Your task to perform on an android device: Is it going to rain tomorrow? Image 0: 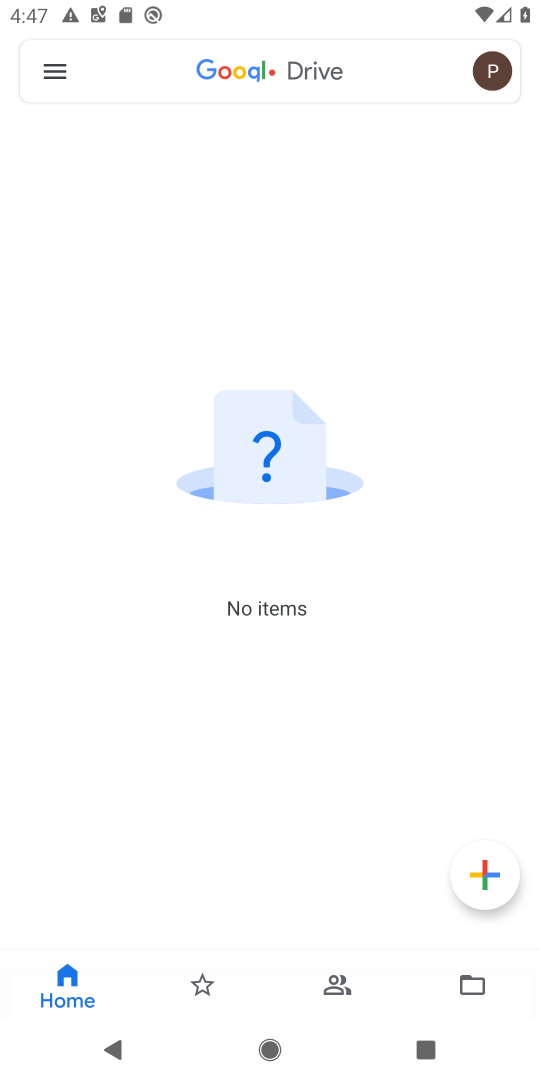
Step 0: press back button
Your task to perform on an android device: Is it going to rain tomorrow? Image 1: 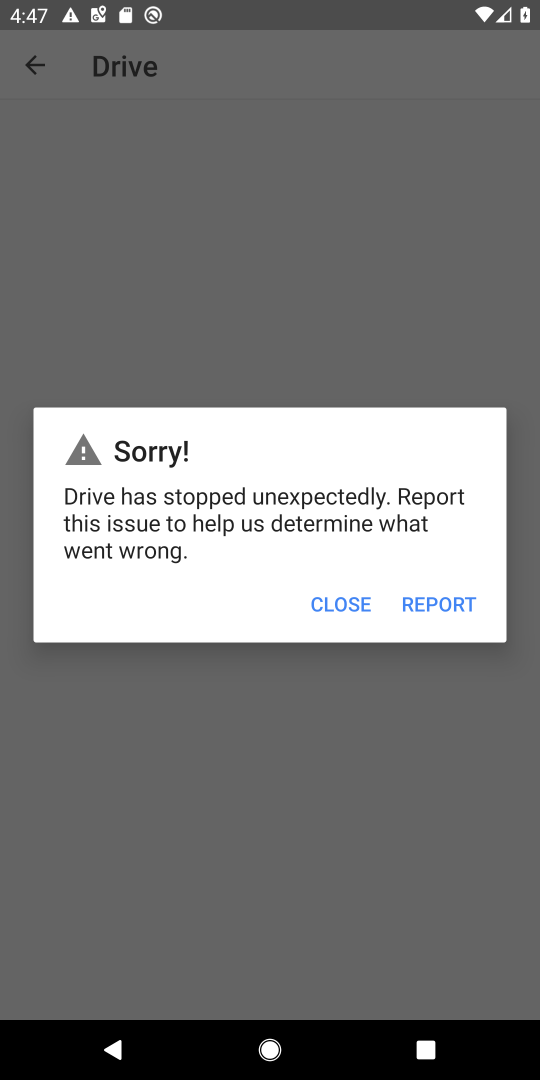
Step 1: click (330, 602)
Your task to perform on an android device: Is it going to rain tomorrow? Image 2: 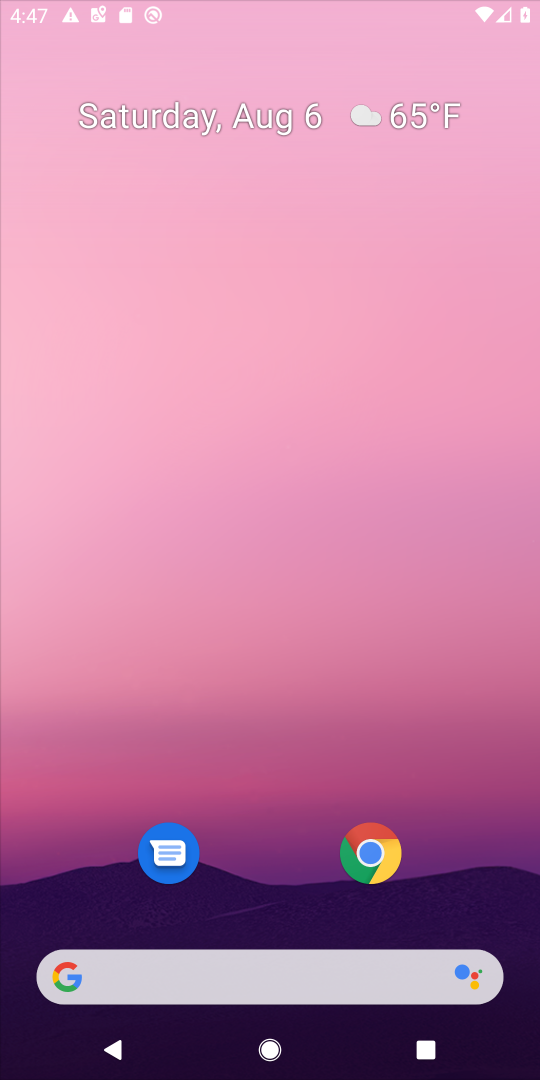
Step 2: press back button
Your task to perform on an android device: Is it going to rain tomorrow? Image 3: 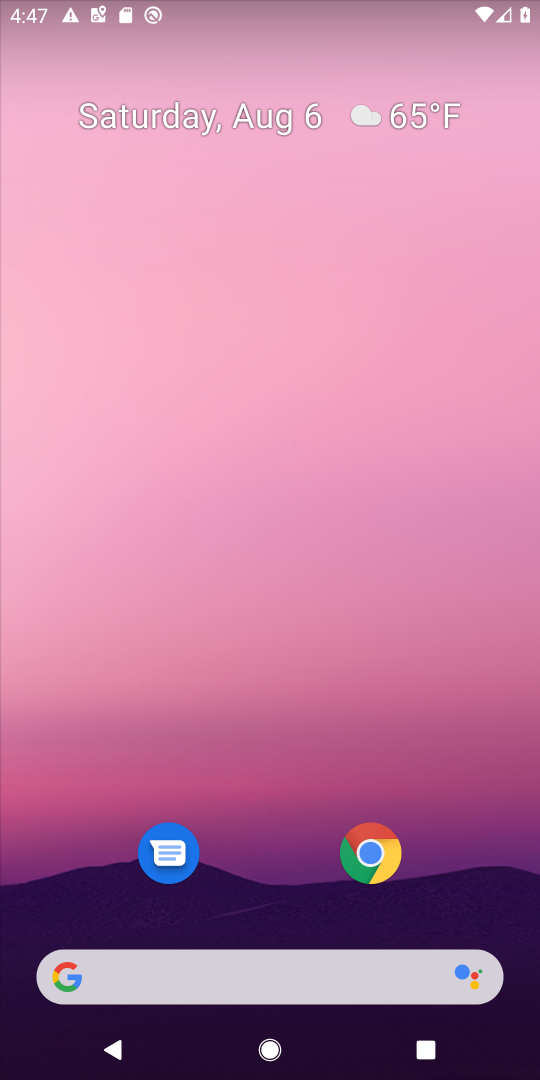
Step 3: click (264, 971)
Your task to perform on an android device: Is it going to rain tomorrow? Image 4: 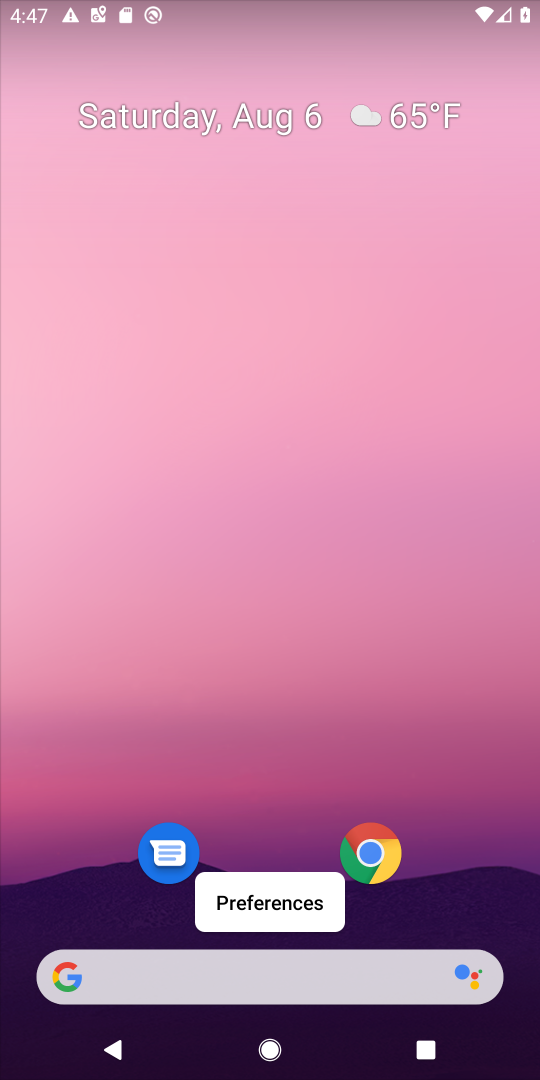
Step 4: click (216, 967)
Your task to perform on an android device: Is it going to rain tomorrow? Image 5: 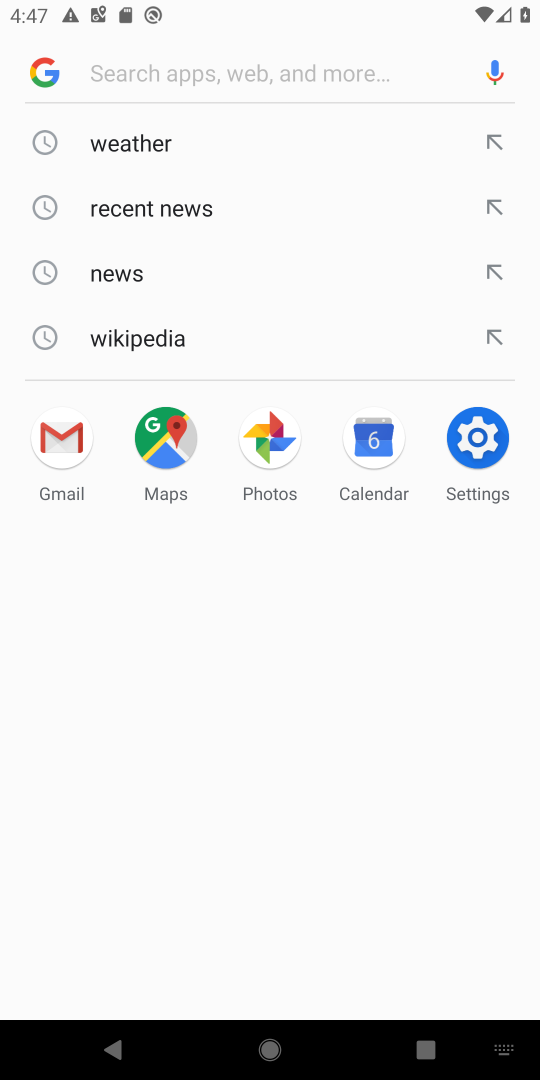
Step 5: click (212, 135)
Your task to perform on an android device: Is it going to rain tomorrow? Image 6: 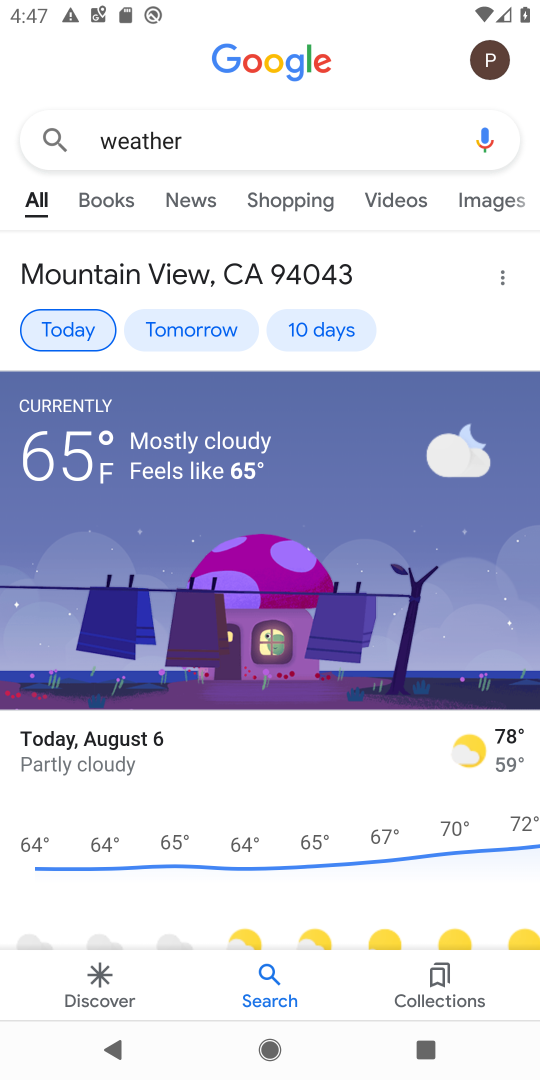
Step 6: click (159, 335)
Your task to perform on an android device: Is it going to rain tomorrow? Image 7: 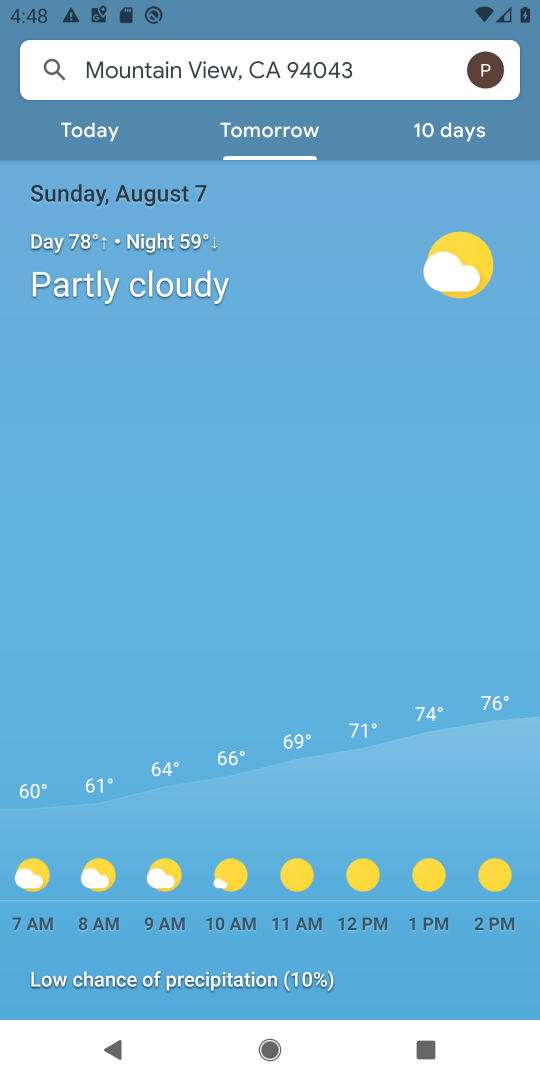
Step 7: task complete